Your task to perform on an android device: toggle show notifications on the lock screen Image 0: 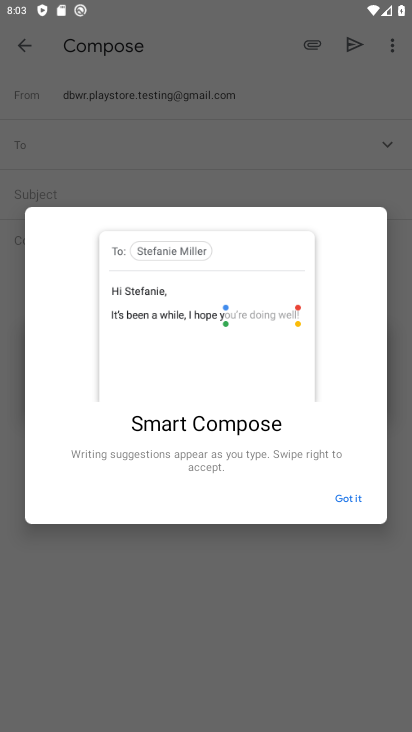
Step 0: drag from (214, 671) to (269, 103)
Your task to perform on an android device: toggle show notifications on the lock screen Image 1: 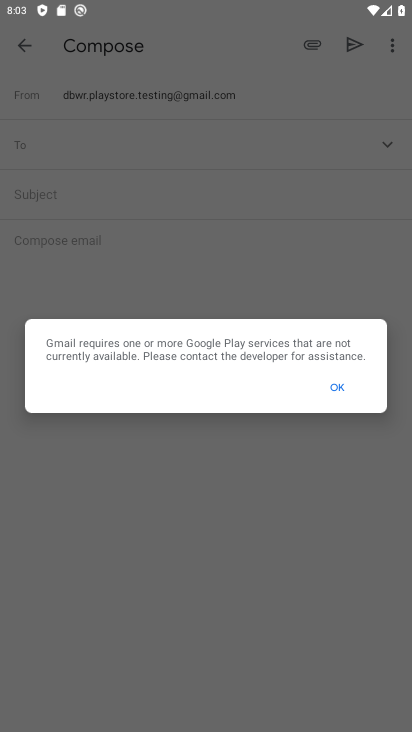
Step 1: press home button
Your task to perform on an android device: toggle show notifications on the lock screen Image 2: 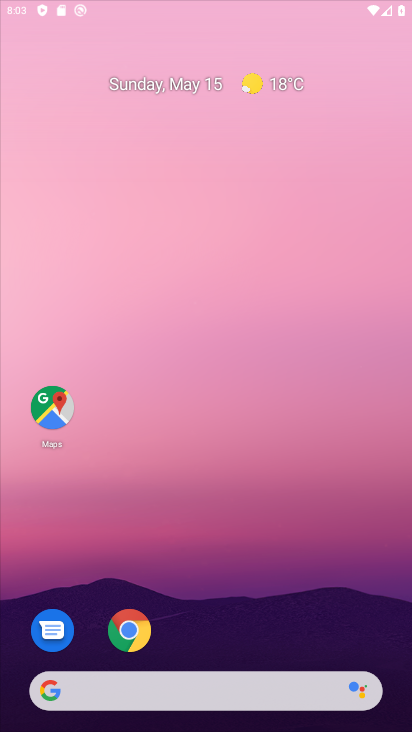
Step 2: drag from (206, 640) to (265, 231)
Your task to perform on an android device: toggle show notifications on the lock screen Image 3: 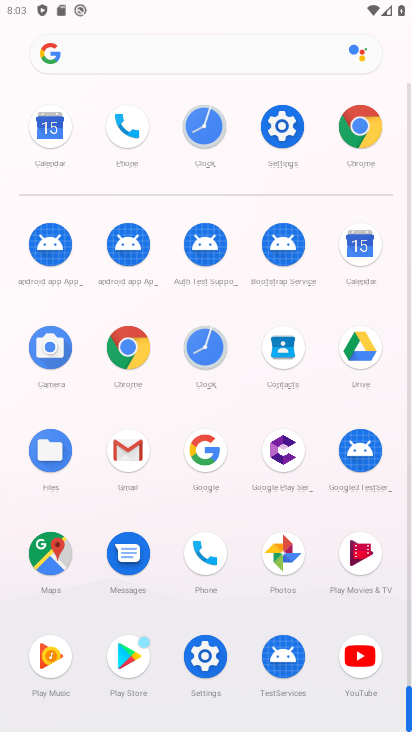
Step 3: click (278, 121)
Your task to perform on an android device: toggle show notifications on the lock screen Image 4: 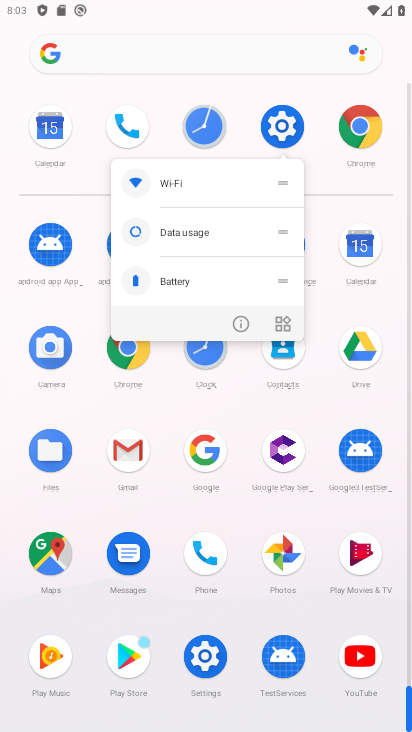
Step 4: click (242, 332)
Your task to perform on an android device: toggle show notifications on the lock screen Image 5: 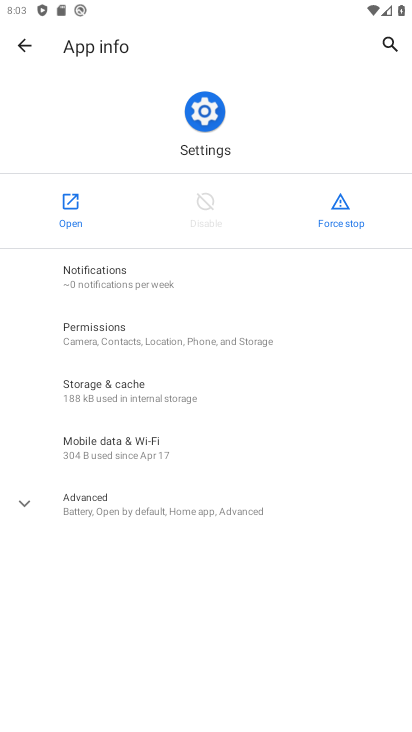
Step 5: click (78, 196)
Your task to perform on an android device: toggle show notifications on the lock screen Image 6: 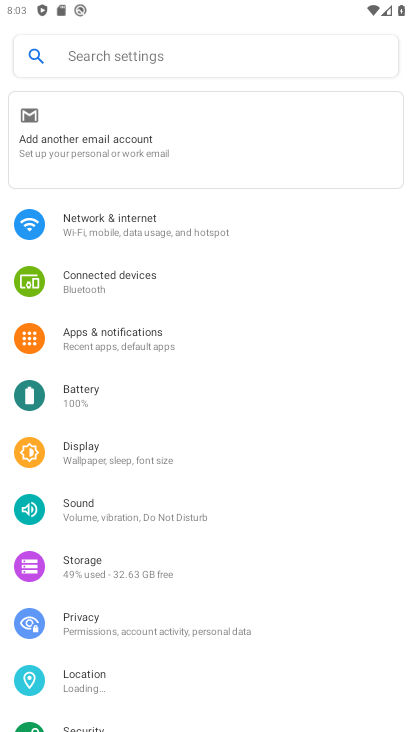
Step 6: click (144, 347)
Your task to perform on an android device: toggle show notifications on the lock screen Image 7: 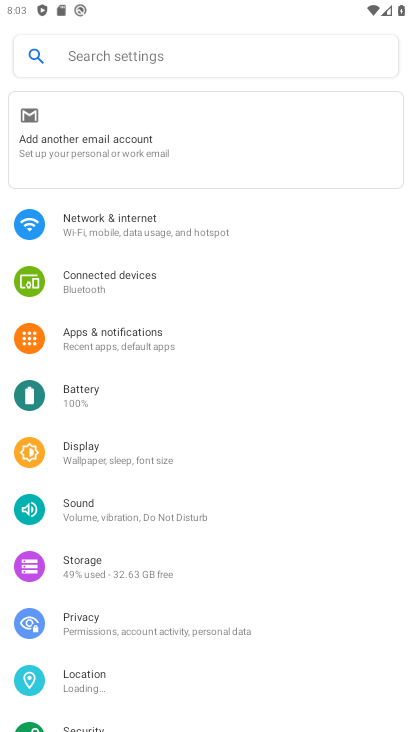
Step 7: click (144, 347)
Your task to perform on an android device: toggle show notifications on the lock screen Image 8: 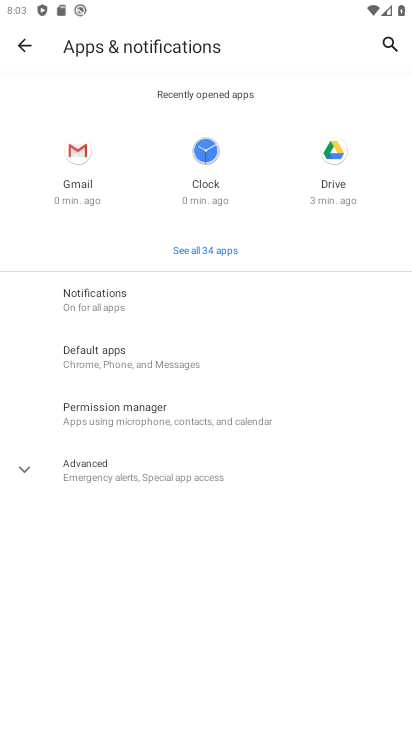
Step 8: click (164, 305)
Your task to perform on an android device: toggle show notifications on the lock screen Image 9: 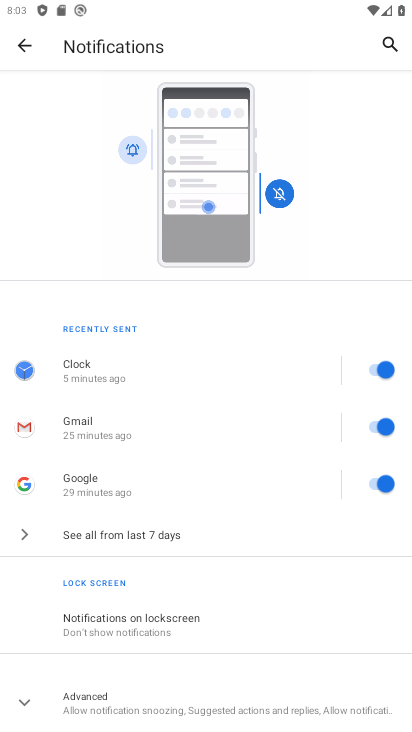
Step 9: drag from (232, 690) to (249, 382)
Your task to perform on an android device: toggle show notifications on the lock screen Image 10: 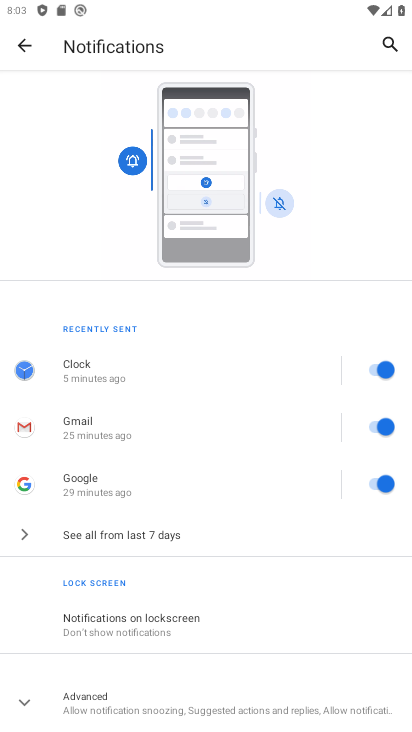
Step 10: click (181, 630)
Your task to perform on an android device: toggle show notifications on the lock screen Image 11: 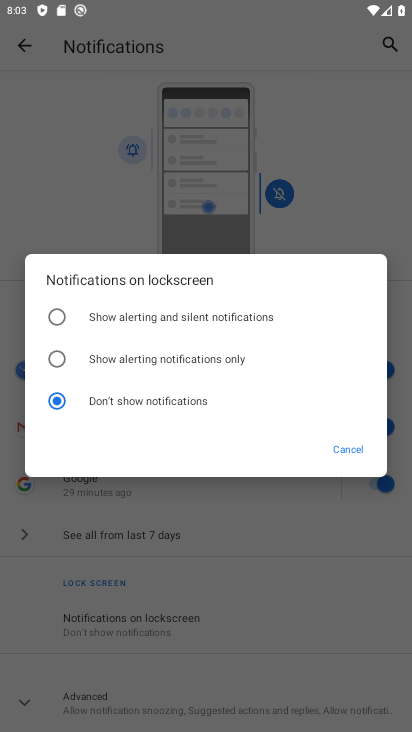
Step 11: click (210, 363)
Your task to perform on an android device: toggle show notifications on the lock screen Image 12: 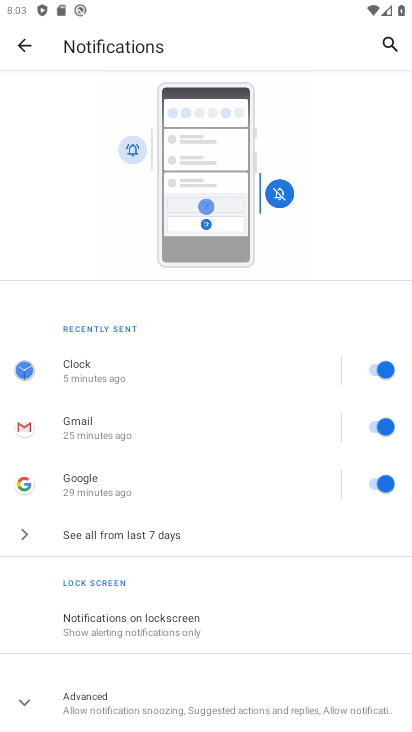
Step 12: task complete